Your task to perform on an android device: open the mobile data screen to see how much data has been used Image 0: 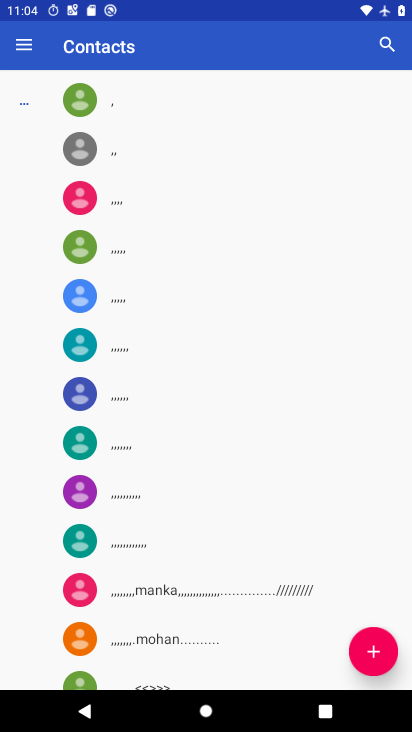
Step 0: press home button
Your task to perform on an android device: open the mobile data screen to see how much data has been used Image 1: 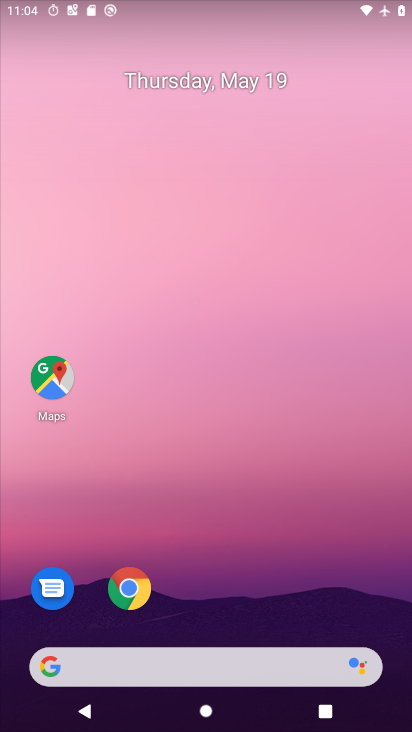
Step 1: drag from (191, 674) to (325, 90)
Your task to perform on an android device: open the mobile data screen to see how much data has been used Image 2: 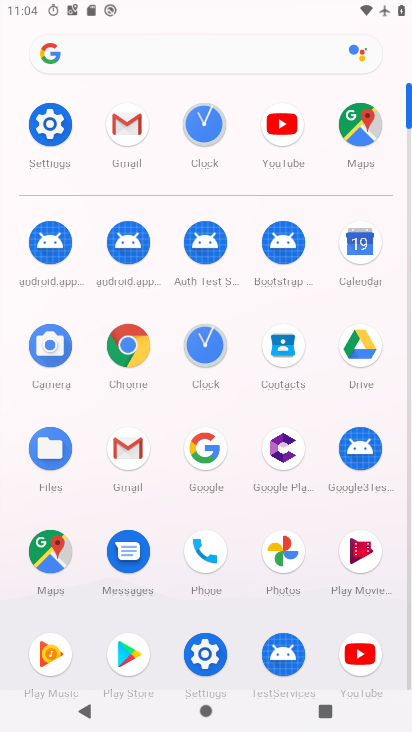
Step 2: click (59, 131)
Your task to perform on an android device: open the mobile data screen to see how much data has been used Image 3: 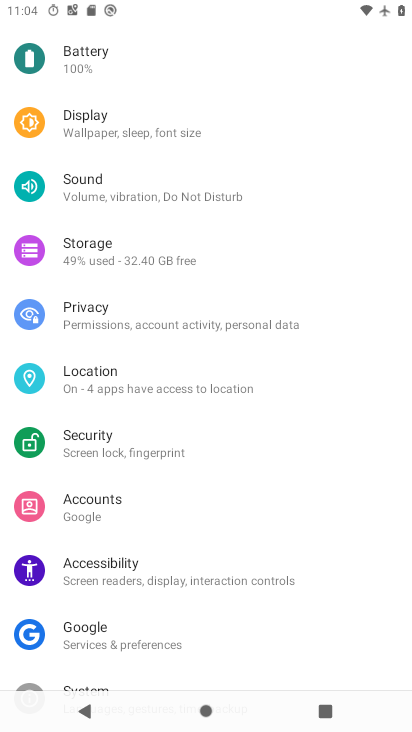
Step 3: drag from (266, 107) to (275, 465)
Your task to perform on an android device: open the mobile data screen to see how much data has been used Image 4: 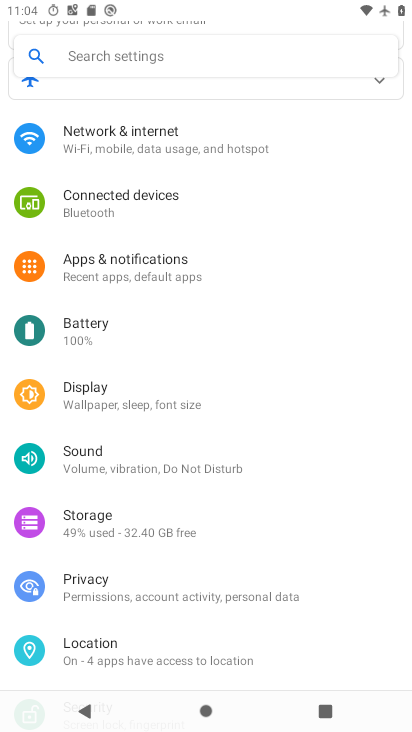
Step 4: click (179, 139)
Your task to perform on an android device: open the mobile data screen to see how much data has been used Image 5: 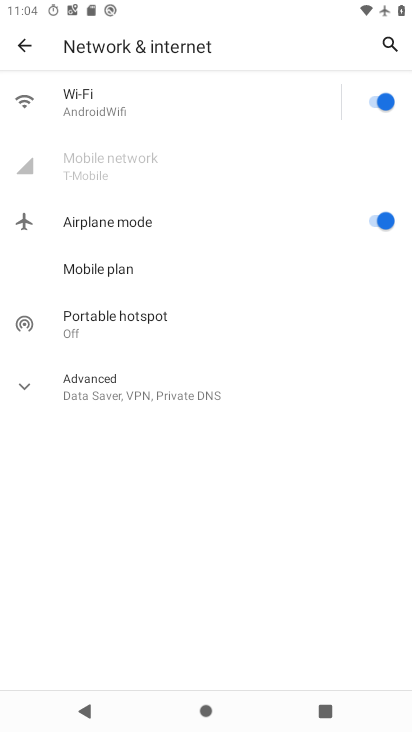
Step 5: task complete